Your task to perform on an android device: change alarm snooze length Image 0: 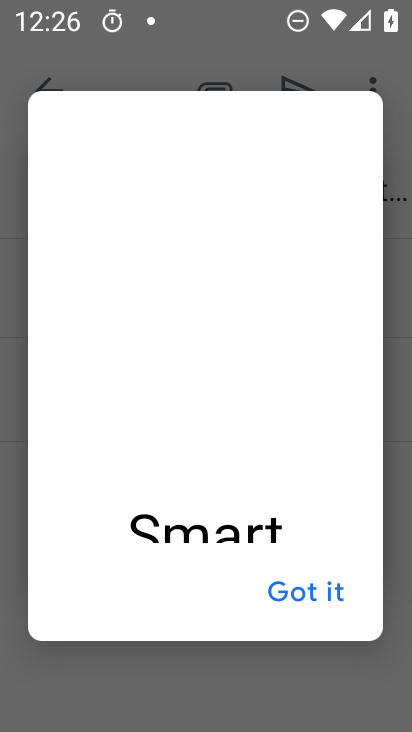
Step 0: click (305, 600)
Your task to perform on an android device: change alarm snooze length Image 1: 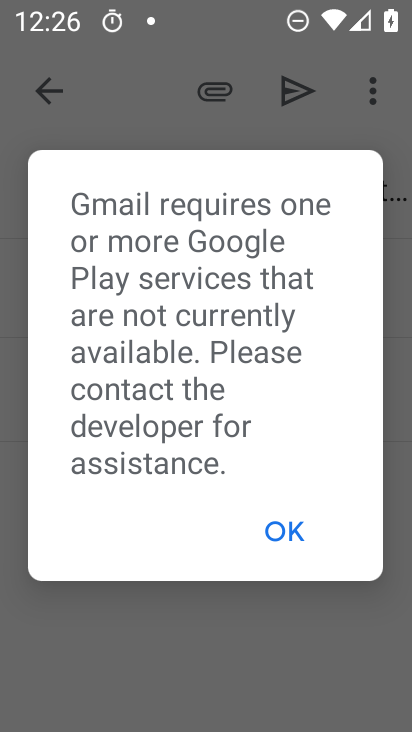
Step 1: press home button
Your task to perform on an android device: change alarm snooze length Image 2: 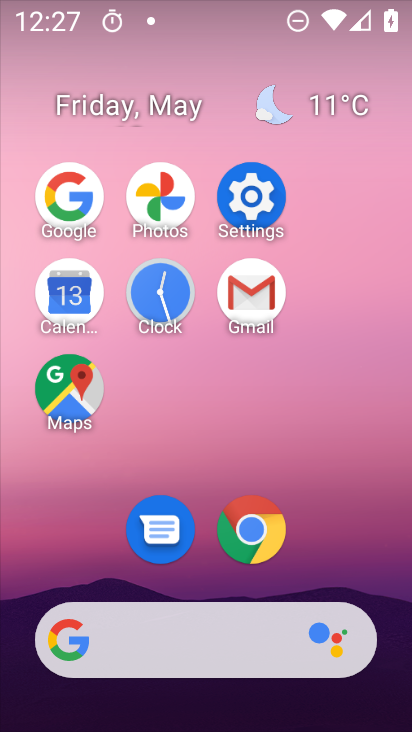
Step 2: click (249, 195)
Your task to perform on an android device: change alarm snooze length Image 3: 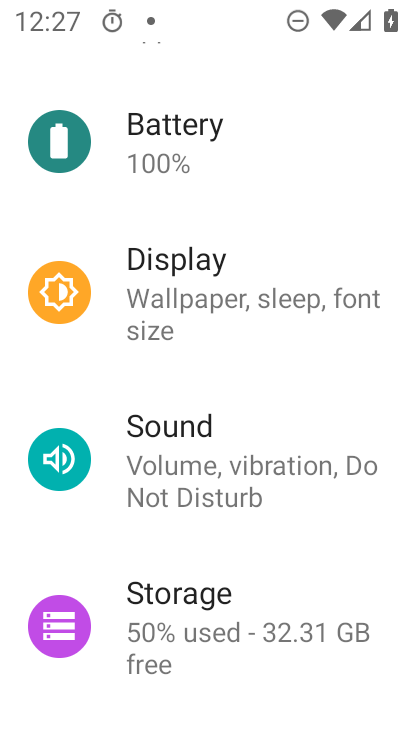
Step 3: press home button
Your task to perform on an android device: change alarm snooze length Image 4: 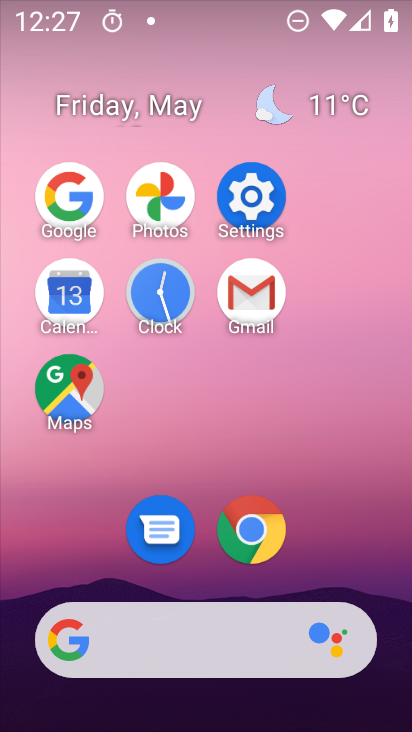
Step 4: click (145, 298)
Your task to perform on an android device: change alarm snooze length Image 5: 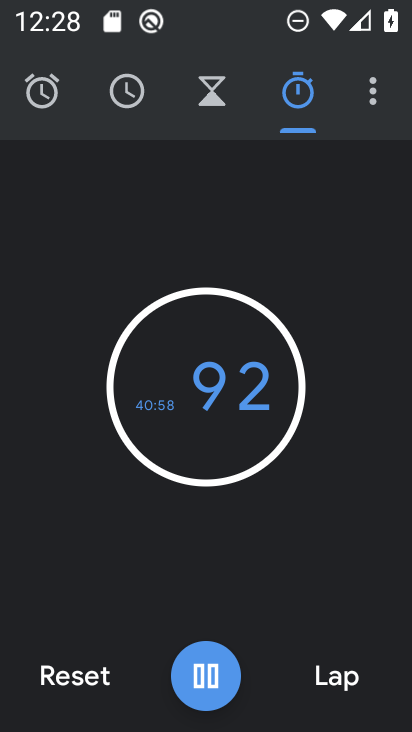
Step 5: click (367, 93)
Your task to perform on an android device: change alarm snooze length Image 6: 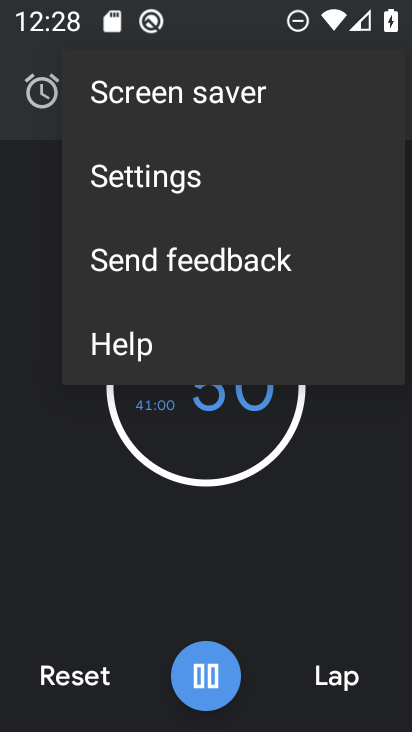
Step 6: click (158, 170)
Your task to perform on an android device: change alarm snooze length Image 7: 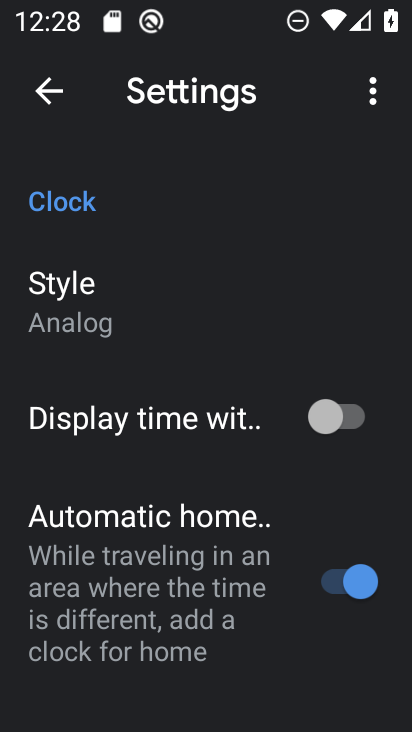
Step 7: click (138, 312)
Your task to perform on an android device: change alarm snooze length Image 8: 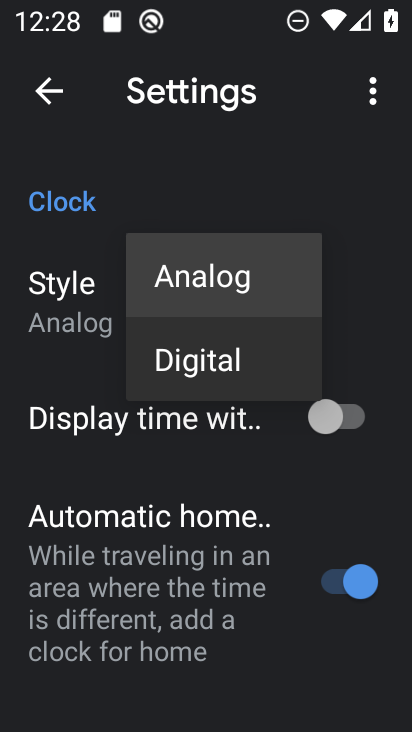
Step 8: click (398, 310)
Your task to perform on an android device: change alarm snooze length Image 9: 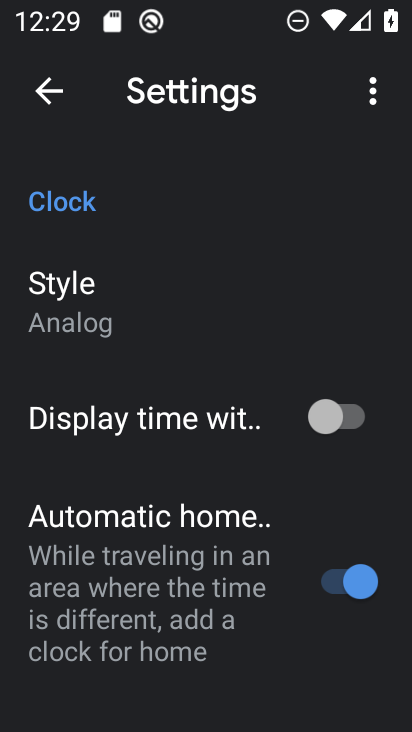
Step 9: drag from (293, 584) to (340, 197)
Your task to perform on an android device: change alarm snooze length Image 10: 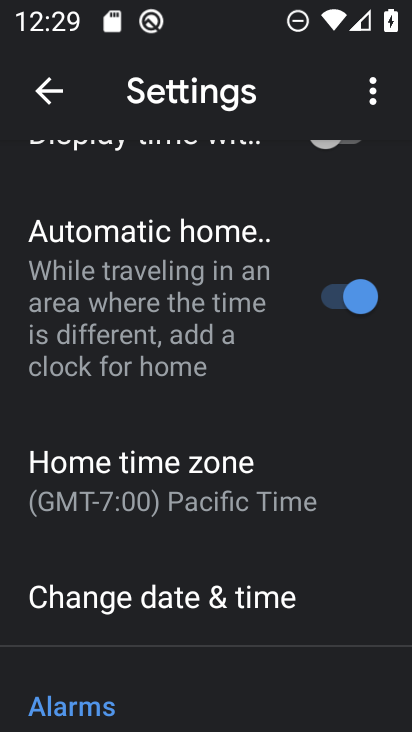
Step 10: drag from (276, 605) to (311, 273)
Your task to perform on an android device: change alarm snooze length Image 11: 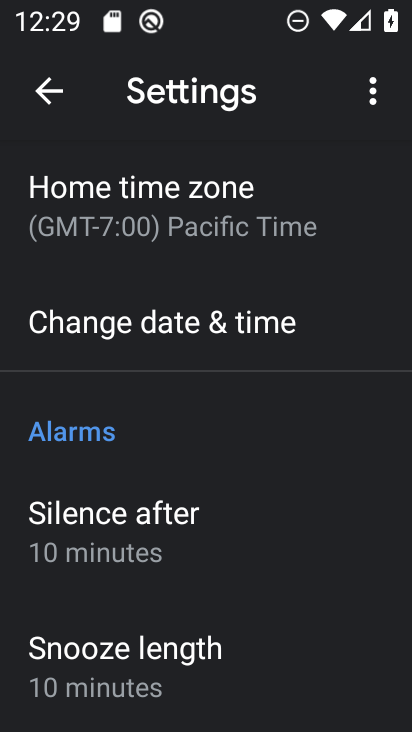
Step 11: click (216, 653)
Your task to perform on an android device: change alarm snooze length Image 12: 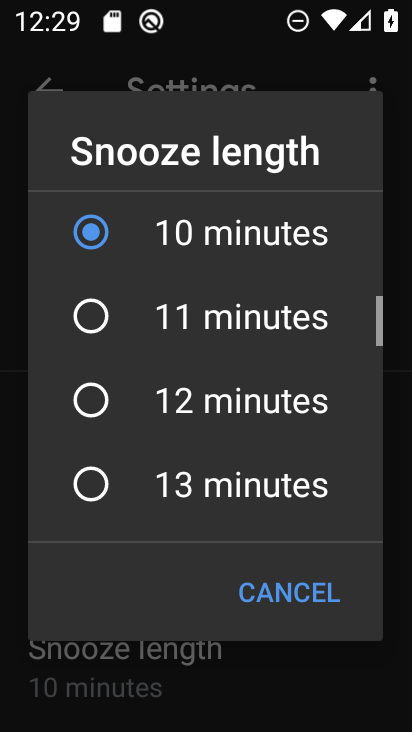
Step 12: click (204, 315)
Your task to perform on an android device: change alarm snooze length Image 13: 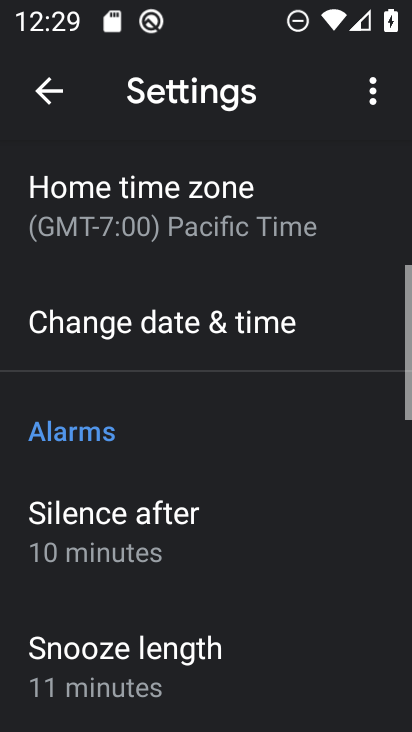
Step 13: task complete